Your task to perform on an android device: turn on javascript in the chrome app Image 0: 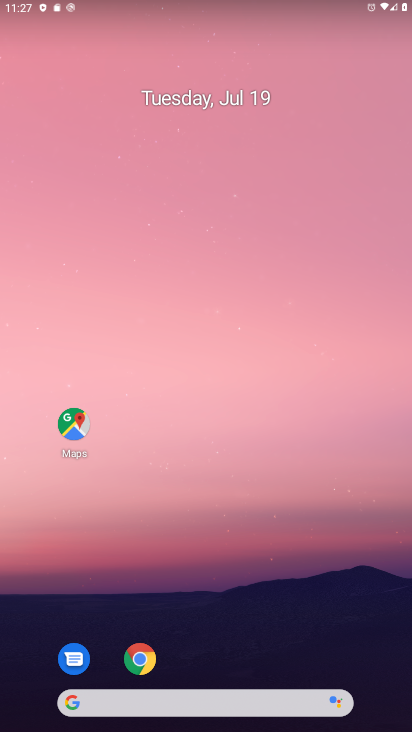
Step 0: press home button
Your task to perform on an android device: turn on javascript in the chrome app Image 1: 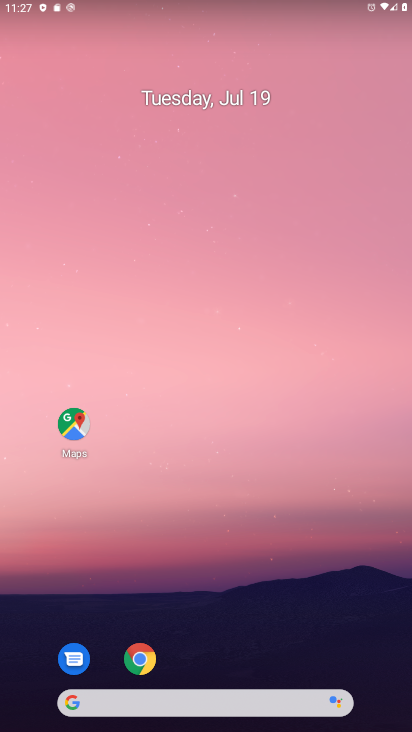
Step 1: drag from (214, 662) to (259, 25)
Your task to perform on an android device: turn on javascript in the chrome app Image 2: 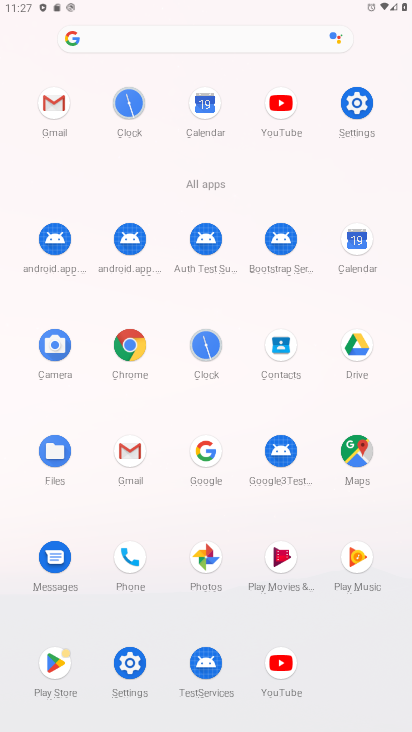
Step 2: click (126, 337)
Your task to perform on an android device: turn on javascript in the chrome app Image 3: 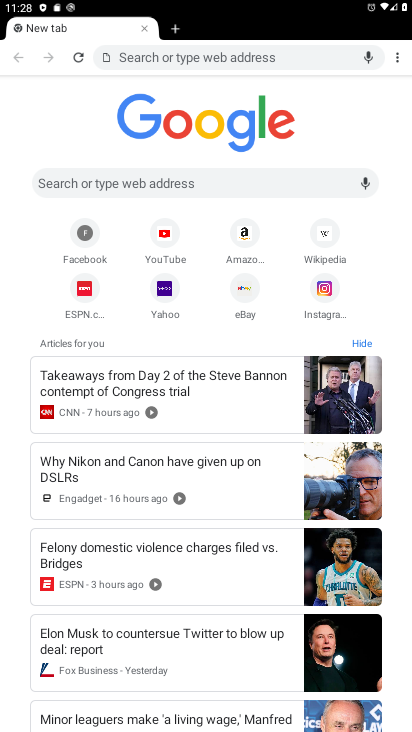
Step 3: click (395, 57)
Your task to perform on an android device: turn on javascript in the chrome app Image 4: 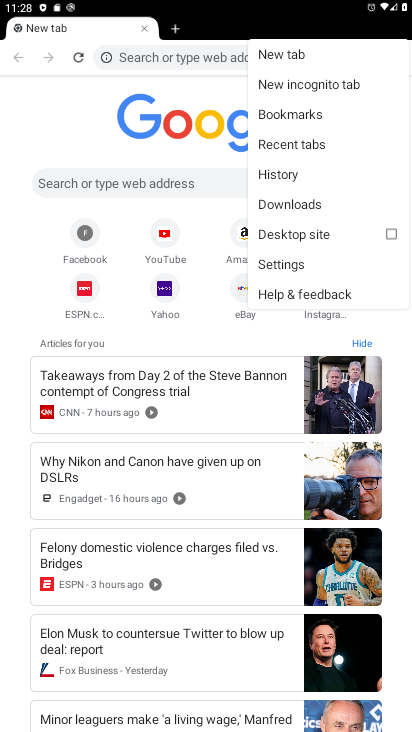
Step 4: click (312, 260)
Your task to perform on an android device: turn on javascript in the chrome app Image 5: 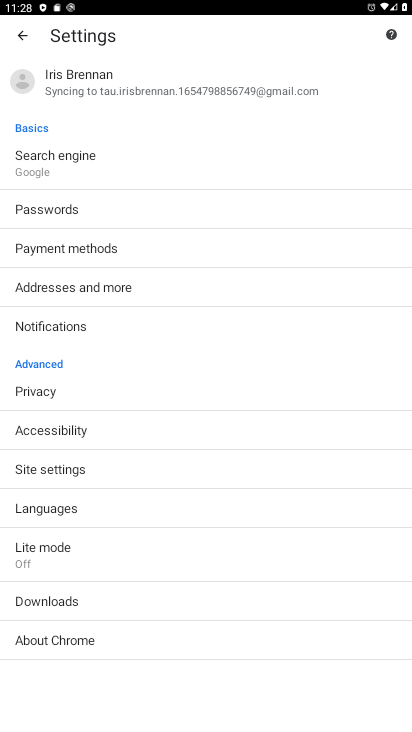
Step 5: click (94, 467)
Your task to perform on an android device: turn on javascript in the chrome app Image 6: 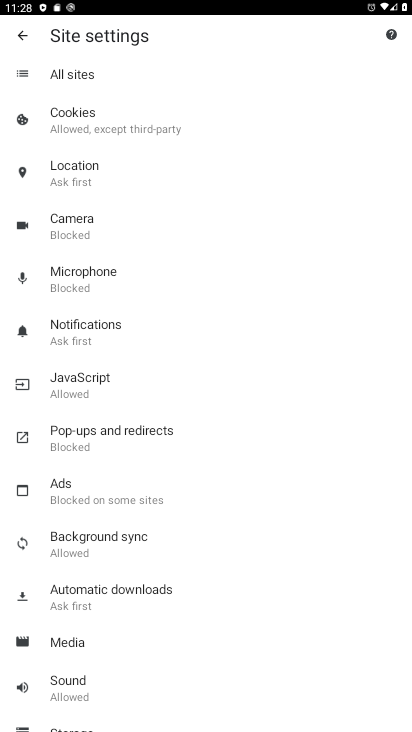
Step 6: click (118, 379)
Your task to perform on an android device: turn on javascript in the chrome app Image 7: 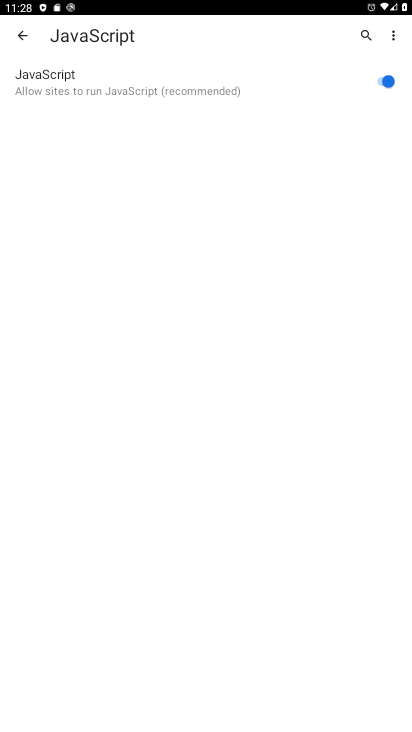
Step 7: task complete